Your task to perform on an android device: Search for "duracell triple a" on walmart, select the first entry, add it to the cart, then select checkout. Image 0: 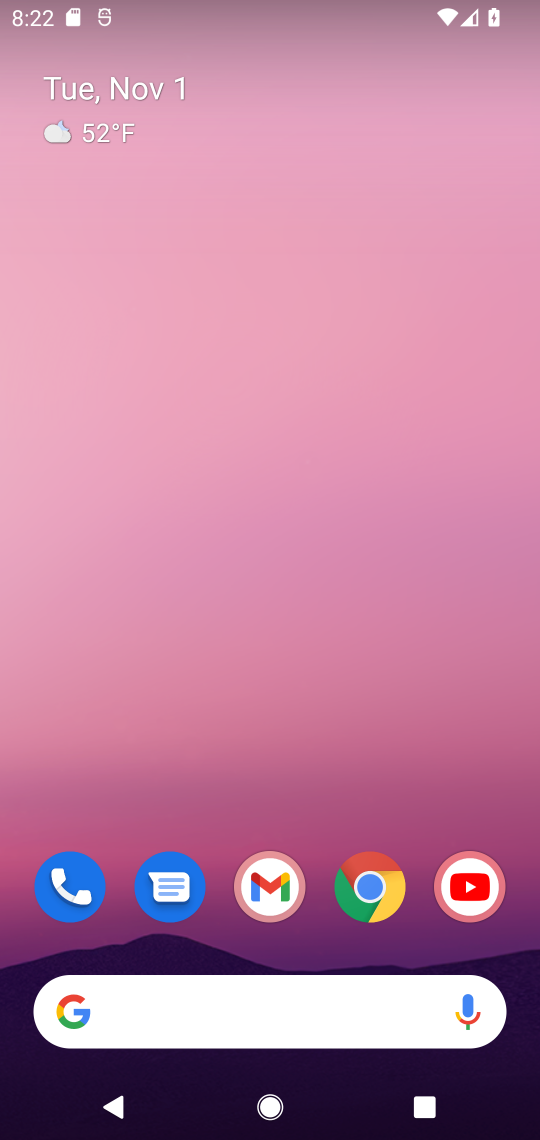
Step 0: click (212, 1000)
Your task to perform on an android device: Search for "duracell triple a" on walmart, select the first entry, add it to the cart, then select checkout. Image 1: 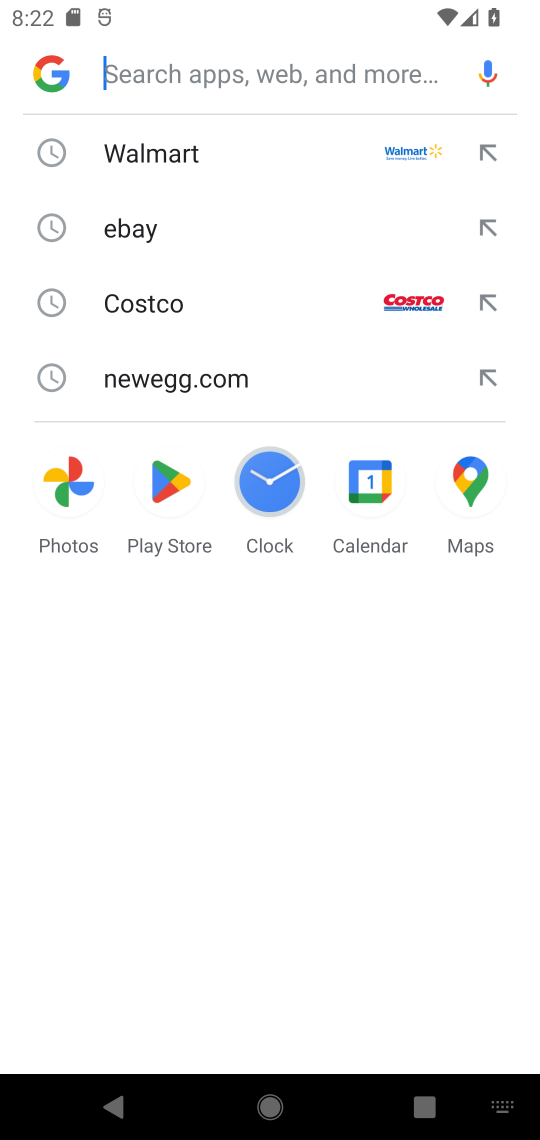
Step 1: click (217, 152)
Your task to perform on an android device: Search for "duracell triple a" on walmart, select the first entry, add it to the cart, then select checkout. Image 2: 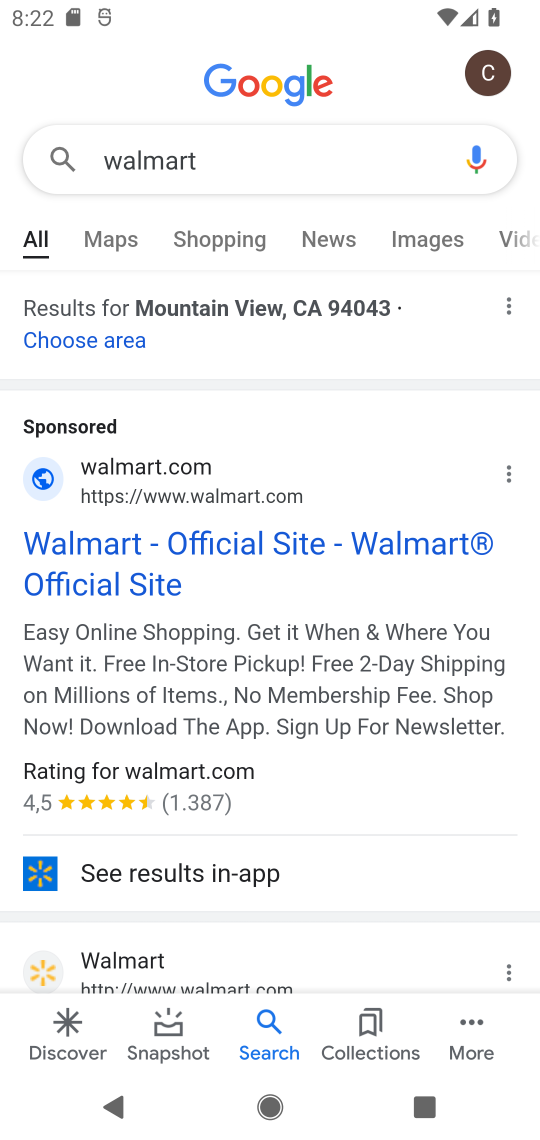
Step 2: click (131, 460)
Your task to perform on an android device: Search for "duracell triple a" on walmart, select the first entry, add it to the cart, then select checkout. Image 3: 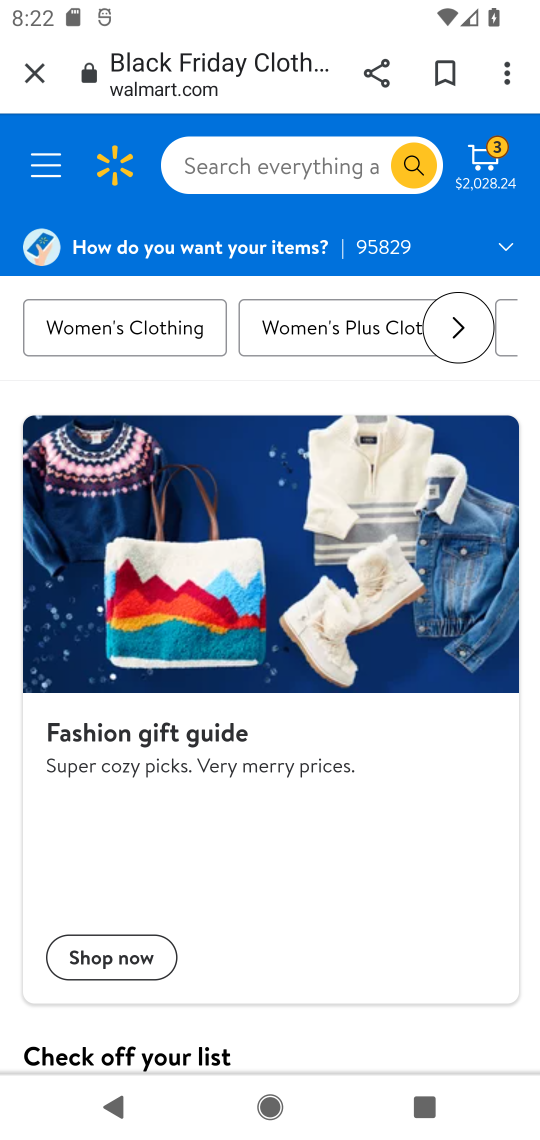
Step 3: click (290, 130)
Your task to perform on an android device: Search for "duracell triple a" on walmart, select the first entry, add it to the cart, then select checkout. Image 4: 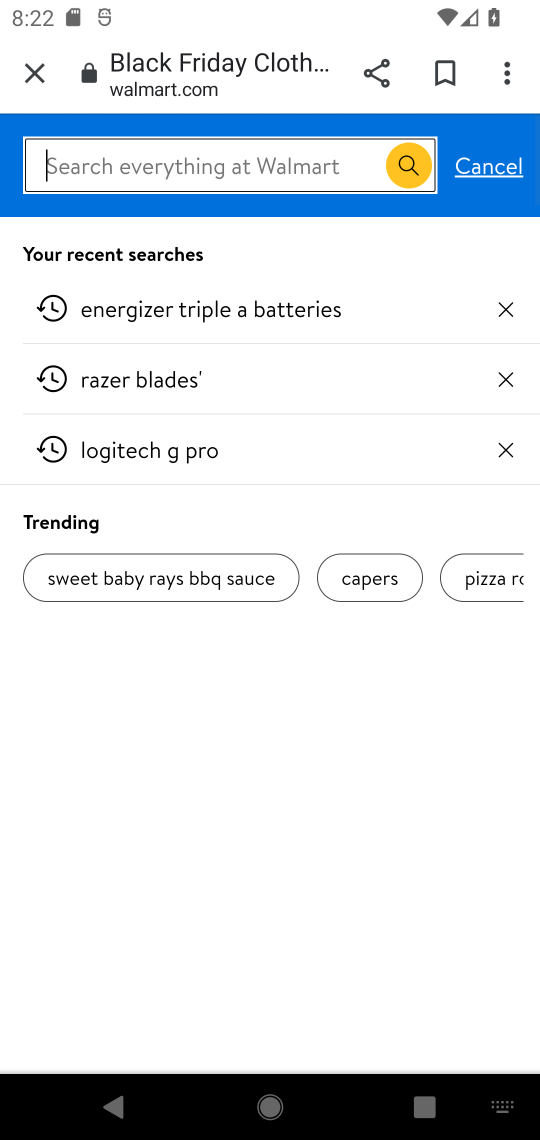
Step 4: click (277, 148)
Your task to perform on an android device: Search for "duracell triple a" on walmart, select the first entry, add it to the cart, then select checkout. Image 5: 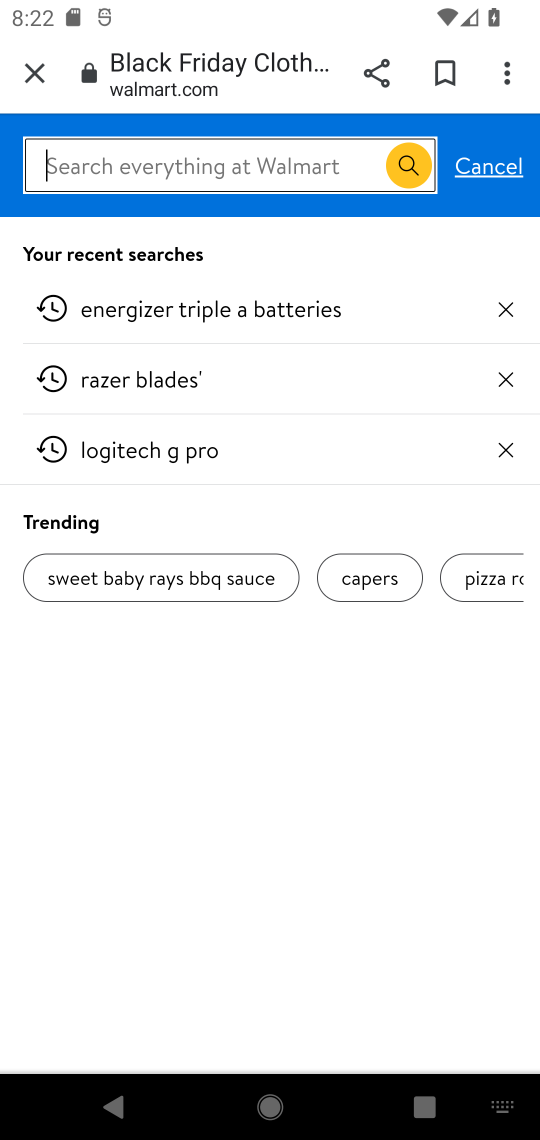
Step 5: type ""duracell triple a"
Your task to perform on an android device: Search for "duracell triple a" on walmart, select the first entry, add it to the cart, then select checkout. Image 6: 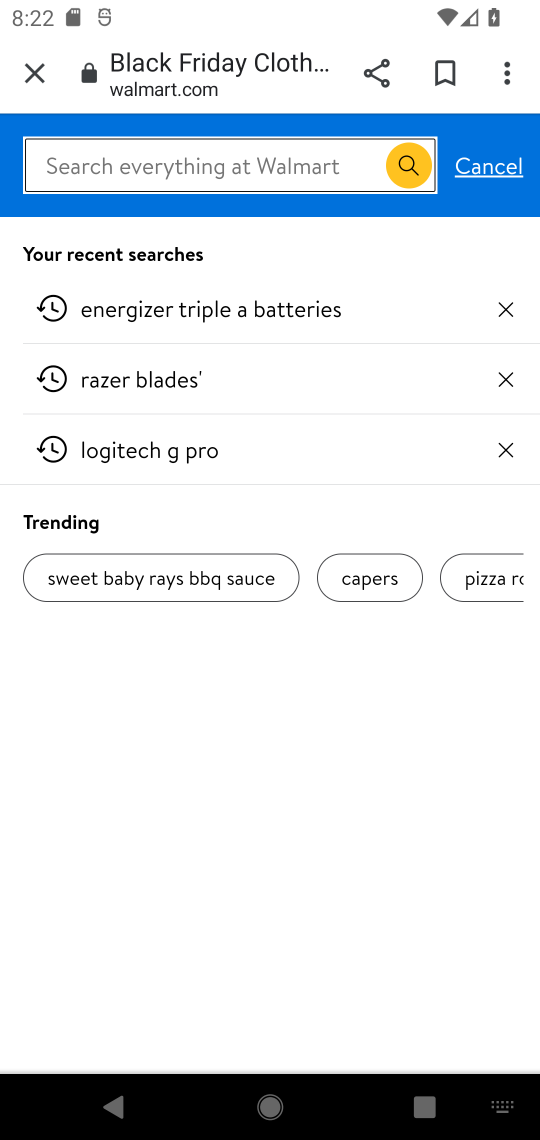
Step 6: click (203, 299)
Your task to perform on an android device: Search for "duracell triple a" on walmart, select the first entry, add it to the cart, then select checkout. Image 7: 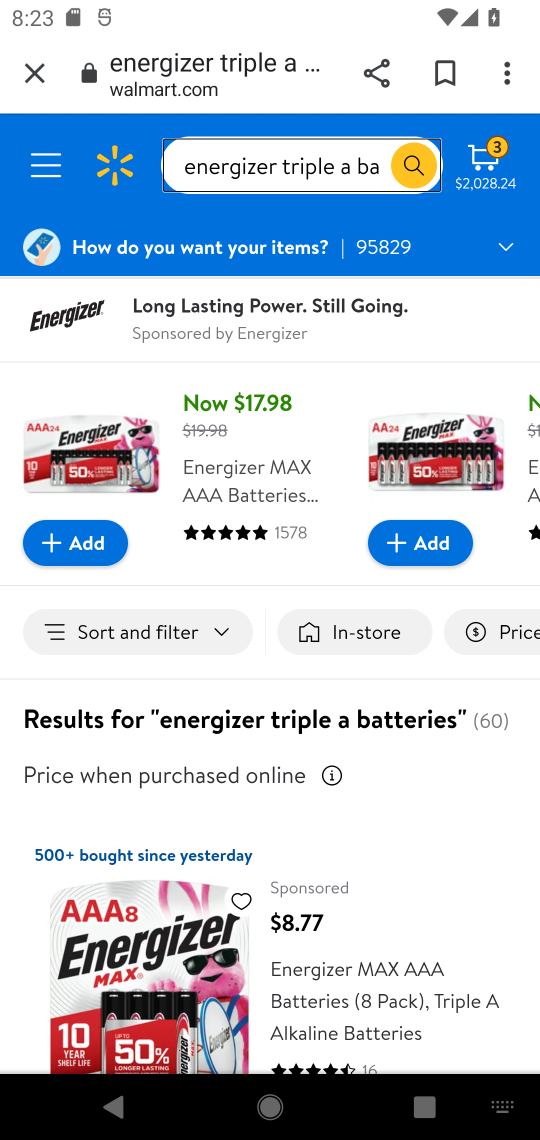
Step 7: drag from (340, 949) to (376, 719)
Your task to perform on an android device: Search for "duracell triple a" on walmart, select the first entry, add it to the cart, then select checkout. Image 8: 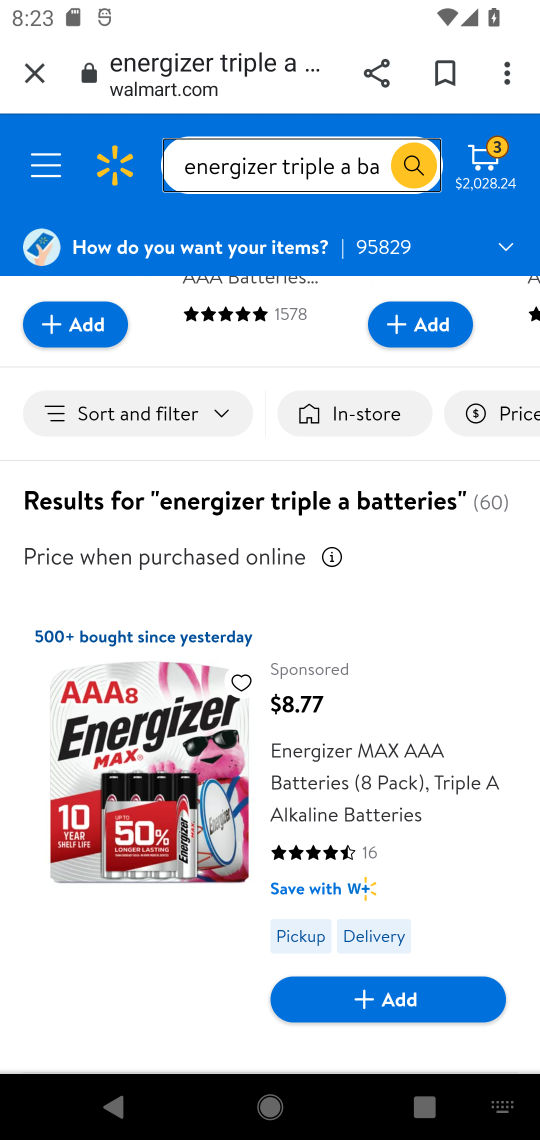
Step 8: click (345, 994)
Your task to perform on an android device: Search for "duracell triple a" on walmart, select the first entry, add it to the cart, then select checkout. Image 9: 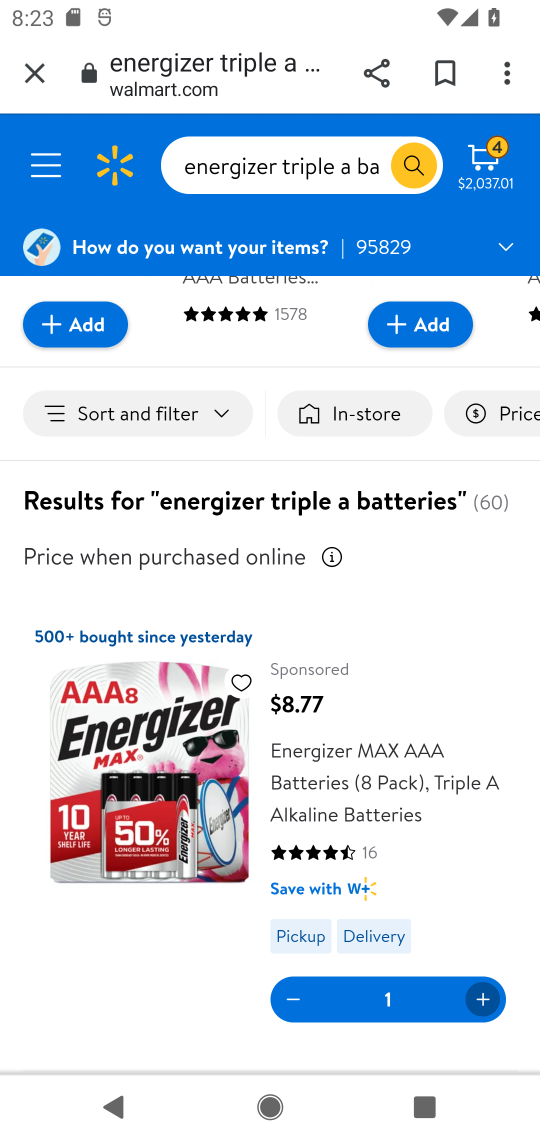
Step 9: task complete